Your task to perform on an android device: Go to settings Image 0: 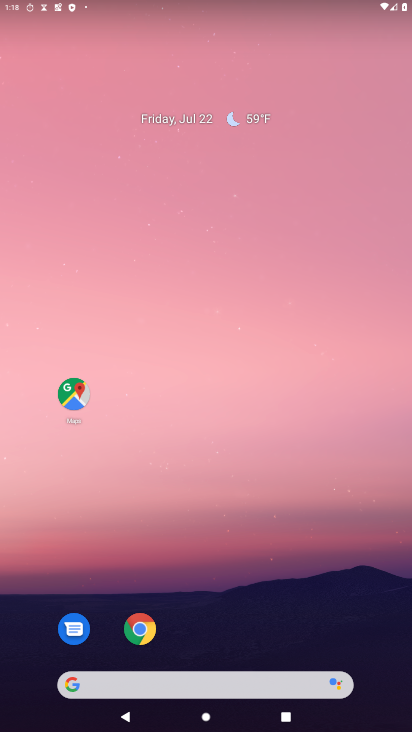
Step 0: drag from (175, 675) to (196, 138)
Your task to perform on an android device: Go to settings Image 1: 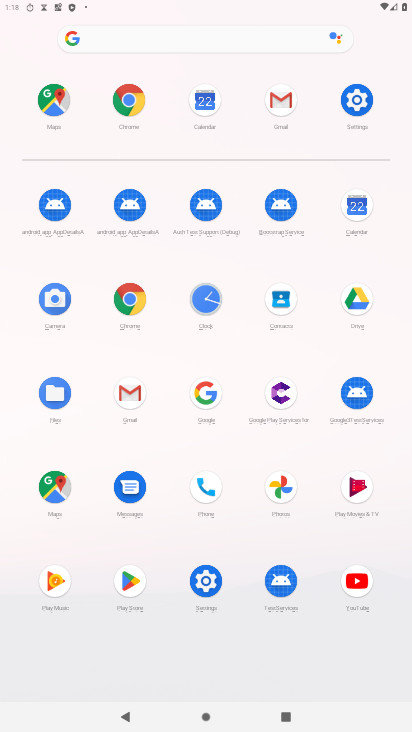
Step 1: click (357, 96)
Your task to perform on an android device: Go to settings Image 2: 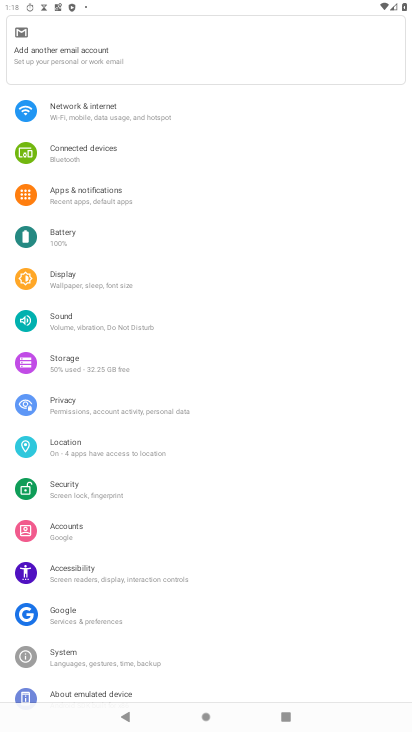
Step 2: task complete